Your task to perform on an android device: see creations saved in the google photos Image 0: 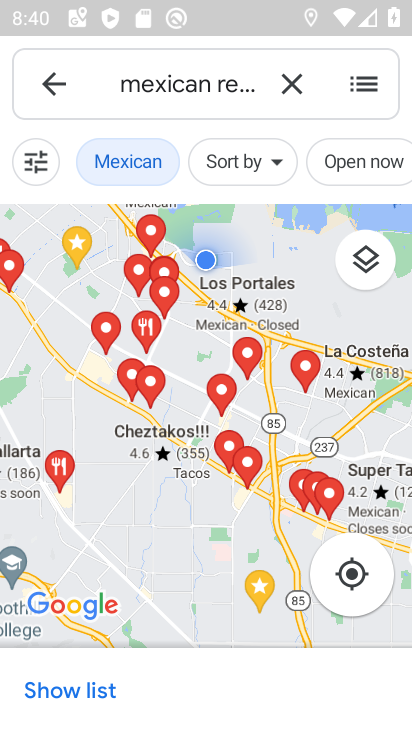
Step 0: press home button
Your task to perform on an android device: see creations saved in the google photos Image 1: 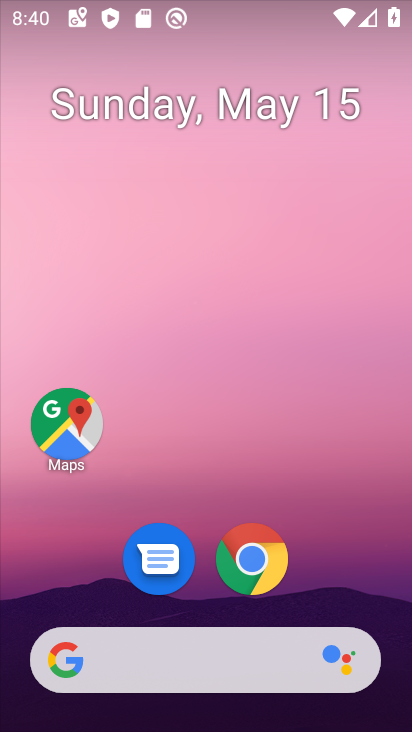
Step 1: drag from (375, 527) to (275, 2)
Your task to perform on an android device: see creations saved in the google photos Image 2: 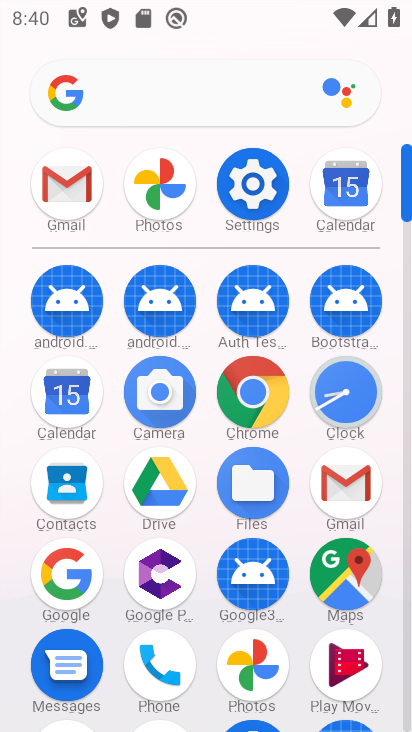
Step 2: click (263, 648)
Your task to perform on an android device: see creations saved in the google photos Image 3: 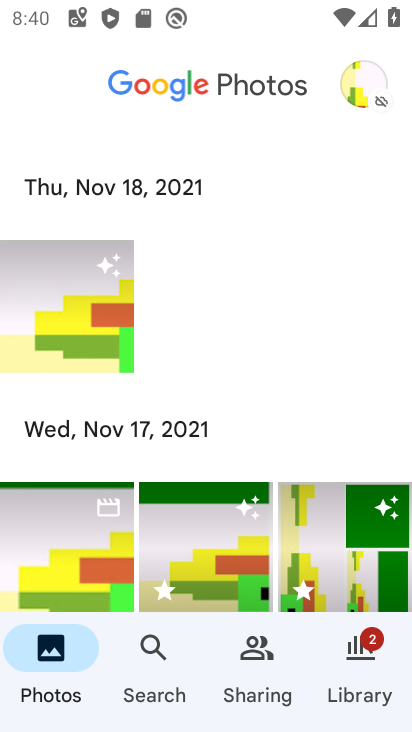
Step 3: click (372, 662)
Your task to perform on an android device: see creations saved in the google photos Image 4: 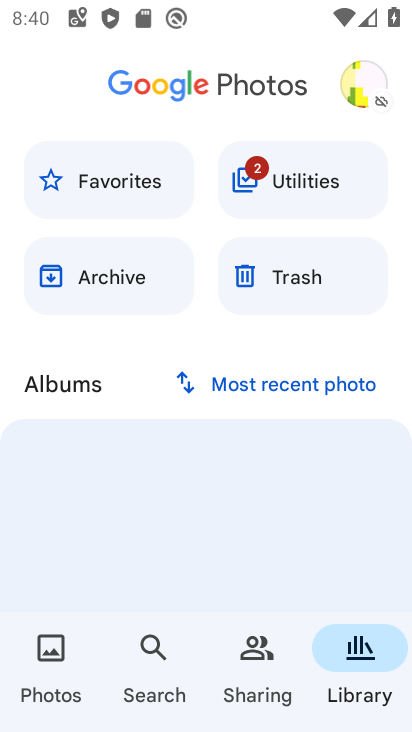
Step 4: click (116, 282)
Your task to perform on an android device: see creations saved in the google photos Image 5: 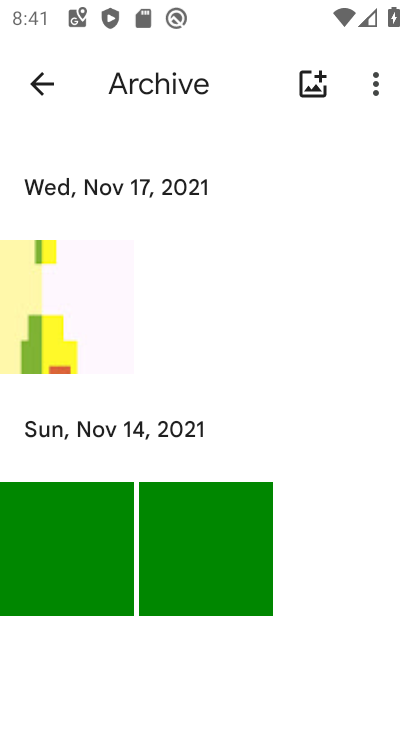
Step 5: task complete